Your task to perform on an android device: turn on javascript in the chrome app Image 0: 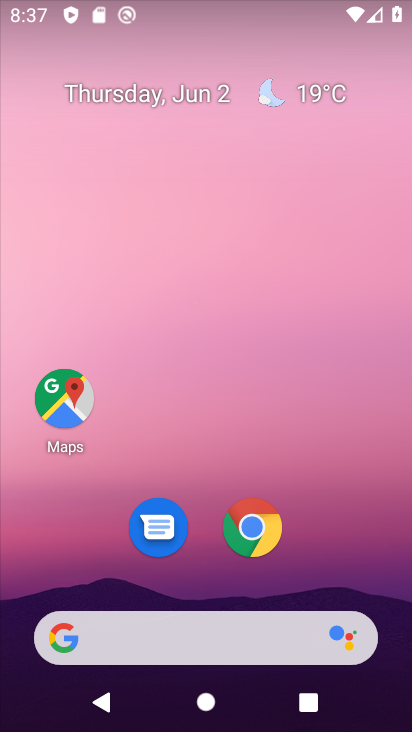
Step 0: click (270, 541)
Your task to perform on an android device: turn on javascript in the chrome app Image 1: 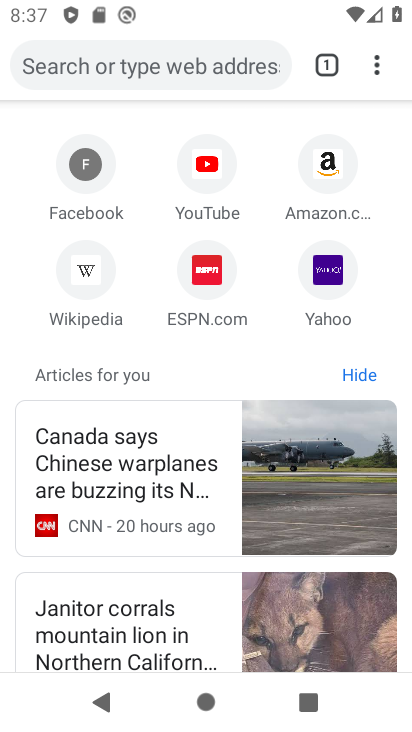
Step 1: click (381, 72)
Your task to perform on an android device: turn on javascript in the chrome app Image 2: 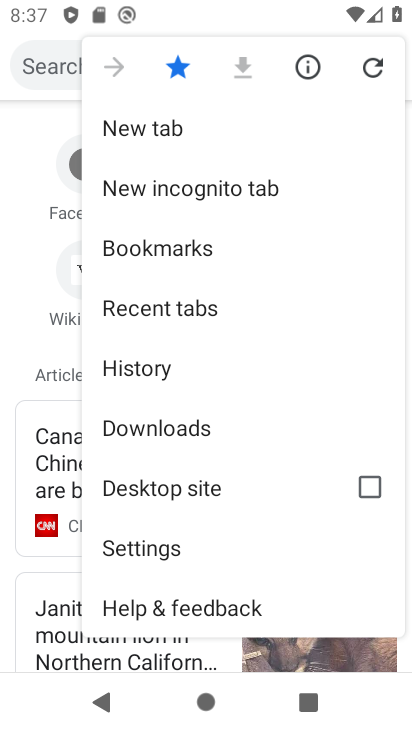
Step 2: drag from (272, 544) to (278, 177)
Your task to perform on an android device: turn on javascript in the chrome app Image 3: 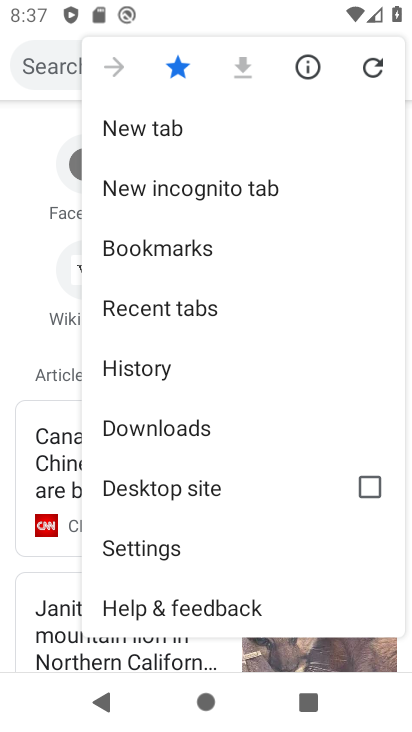
Step 3: click (171, 551)
Your task to perform on an android device: turn on javascript in the chrome app Image 4: 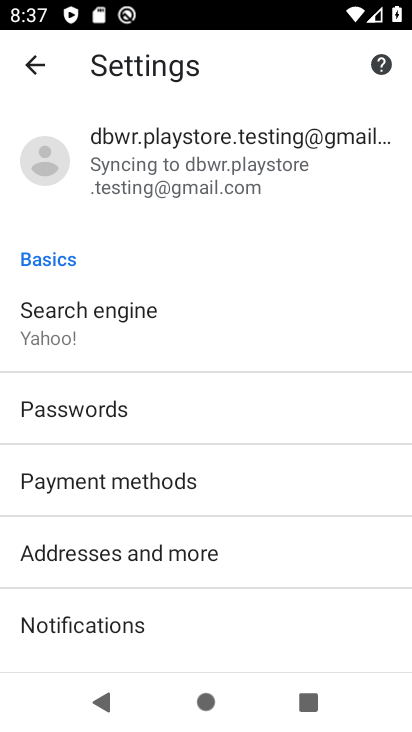
Step 4: drag from (182, 604) to (177, 128)
Your task to perform on an android device: turn on javascript in the chrome app Image 5: 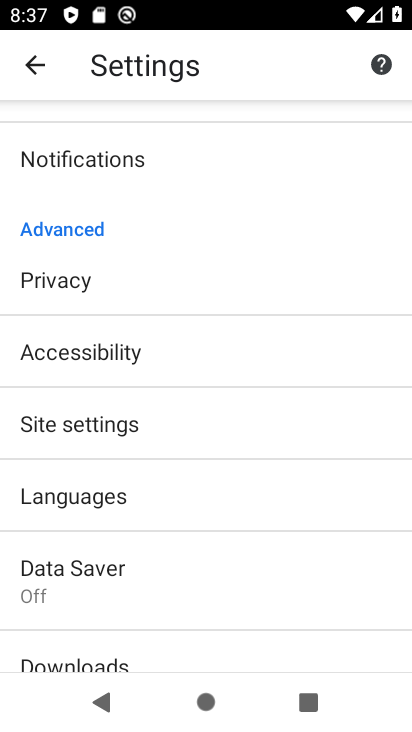
Step 5: click (114, 424)
Your task to perform on an android device: turn on javascript in the chrome app Image 6: 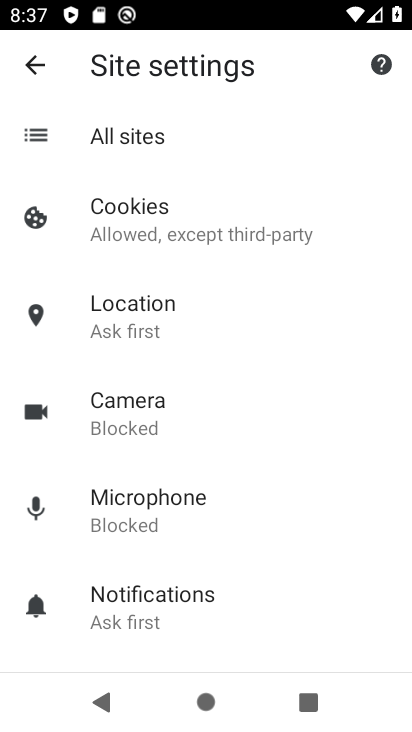
Step 6: drag from (181, 561) to (154, 168)
Your task to perform on an android device: turn on javascript in the chrome app Image 7: 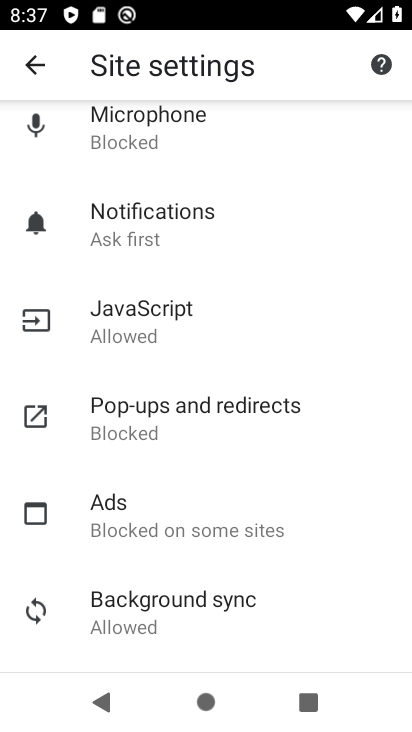
Step 7: click (177, 305)
Your task to perform on an android device: turn on javascript in the chrome app Image 8: 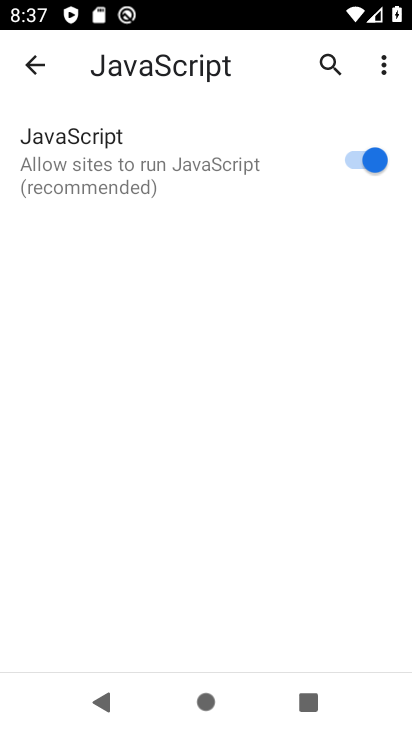
Step 8: task complete